Your task to perform on an android device: Go to sound settings Image 0: 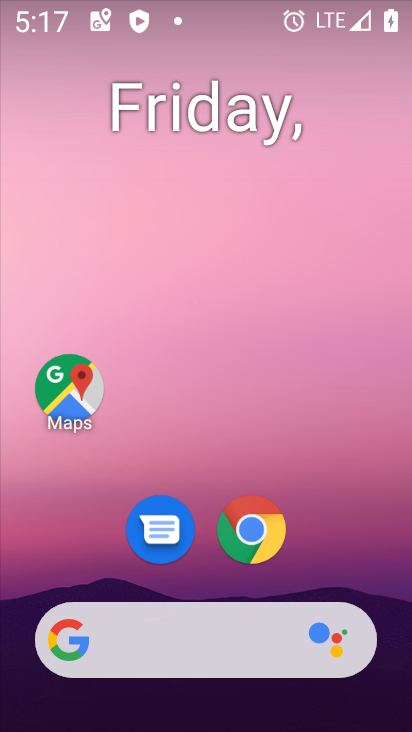
Step 0: drag from (340, 538) to (265, 28)
Your task to perform on an android device: Go to sound settings Image 1: 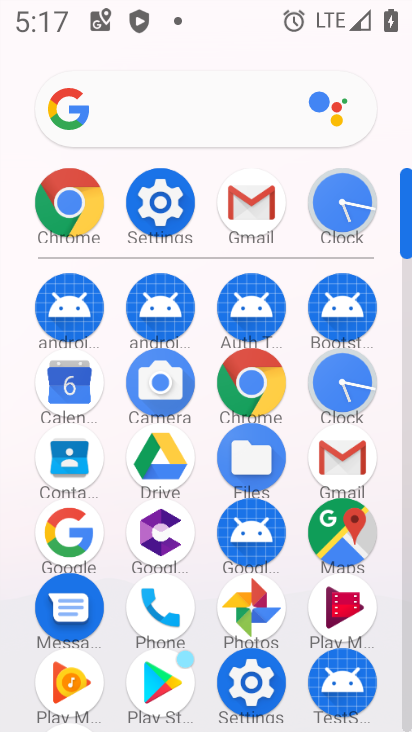
Step 1: click (158, 220)
Your task to perform on an android device: Go to sound settings Image 2: 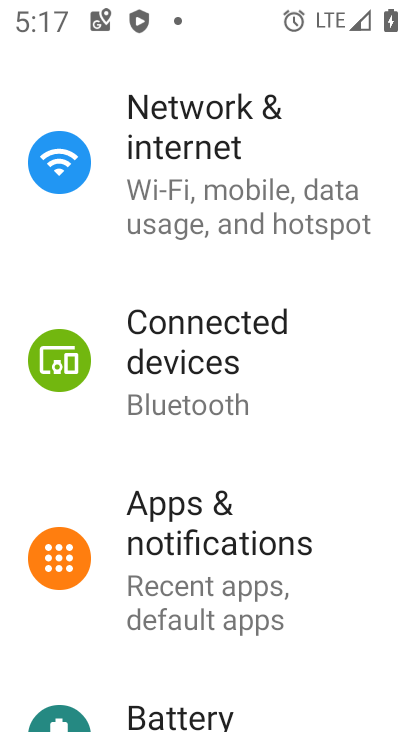
Step 2: drag from (271, 636) to (245, 118)
Your task to perform on an android device: Go to sound settings Image 3: 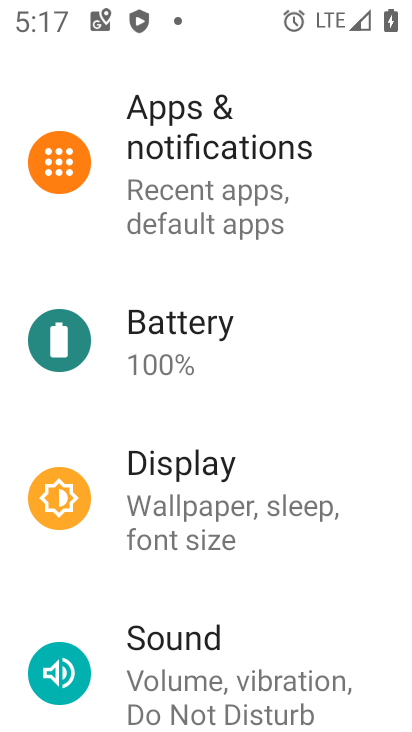
Step 3: click (208, 656)
Your task to perform on an android device: Go to sound settings Image 4: 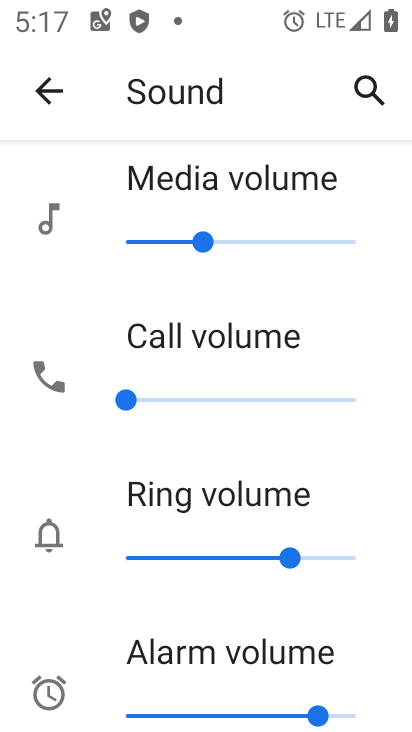
Step 4: task complete